Your task to perform on an android device: turn notification dots off Image 0: 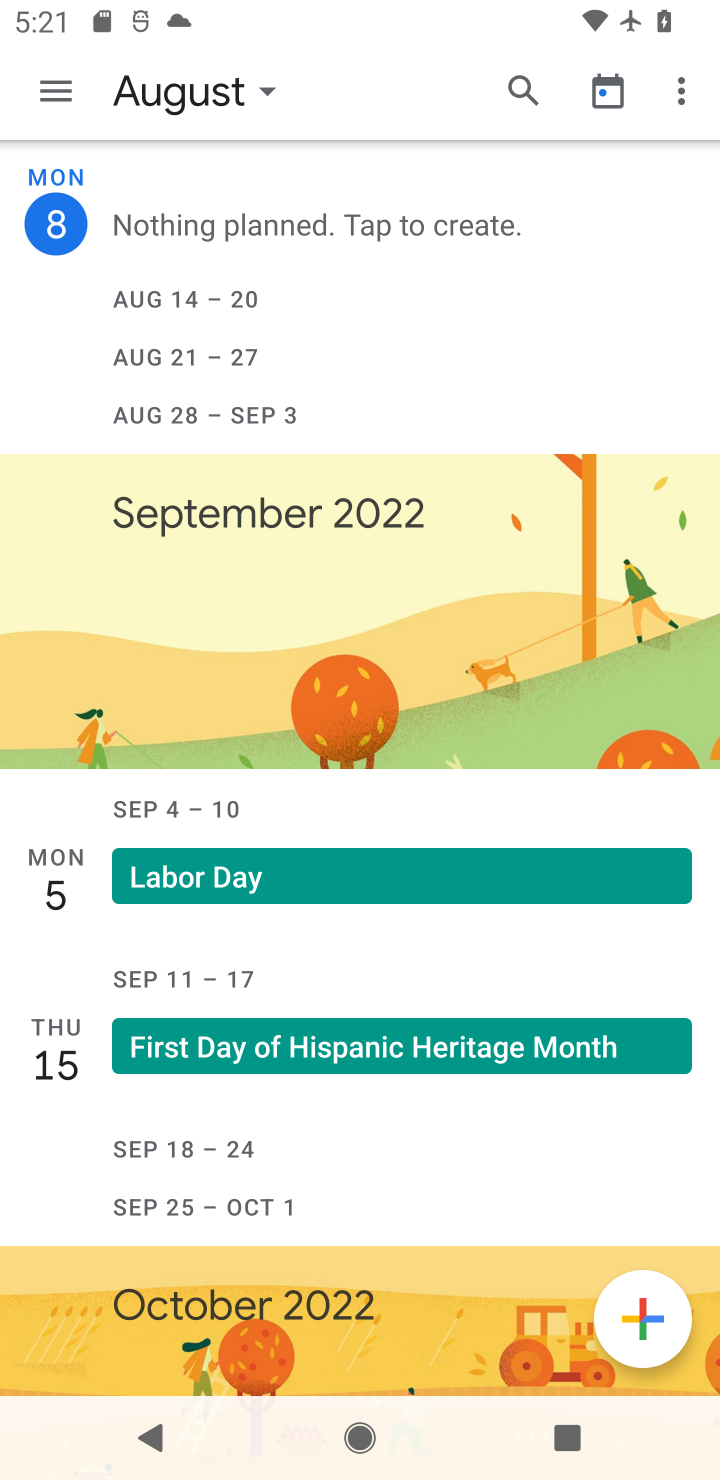
Step 0: press home button
Your task to perform on an android device: turn notification dots off Image 1: 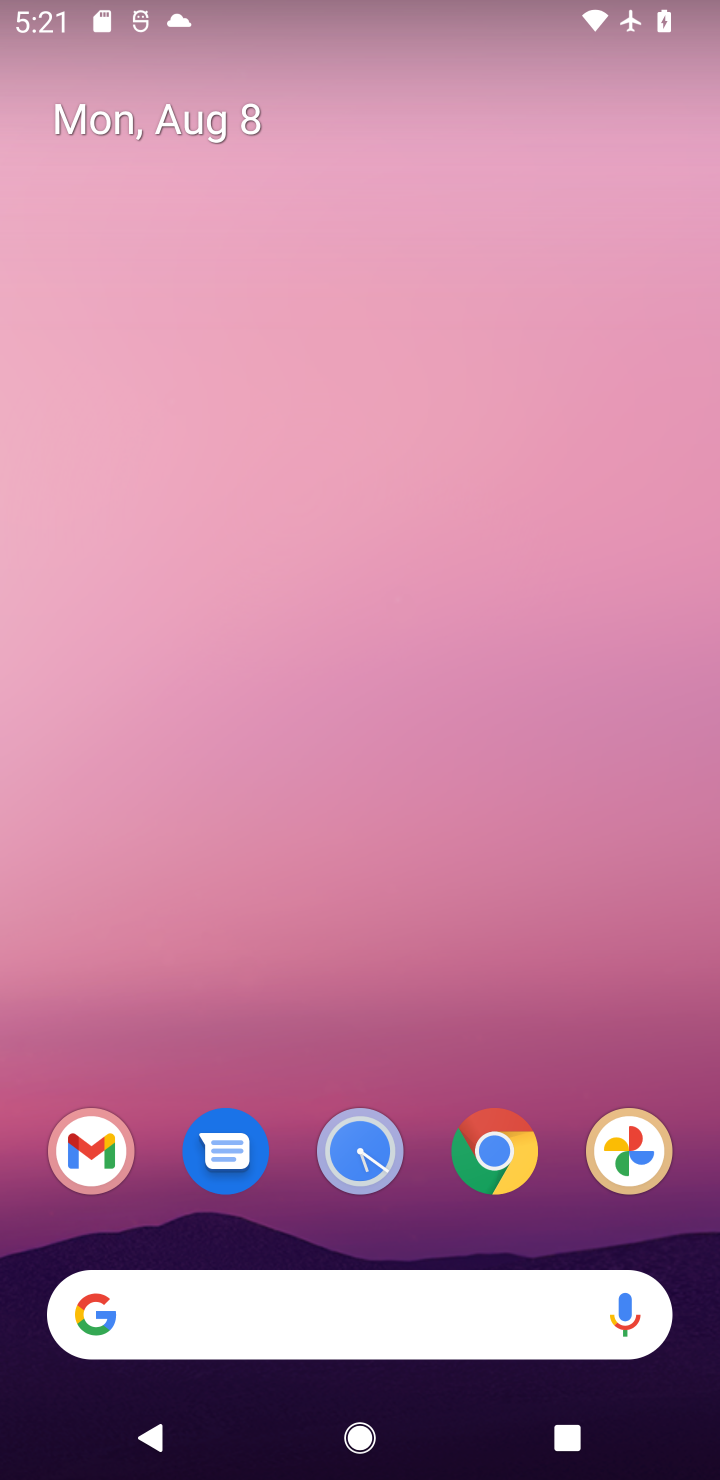
Step 1: drag from (382, 989) to (326, 340)
Your task to perform on an android device: turn notification dots off Image 2: 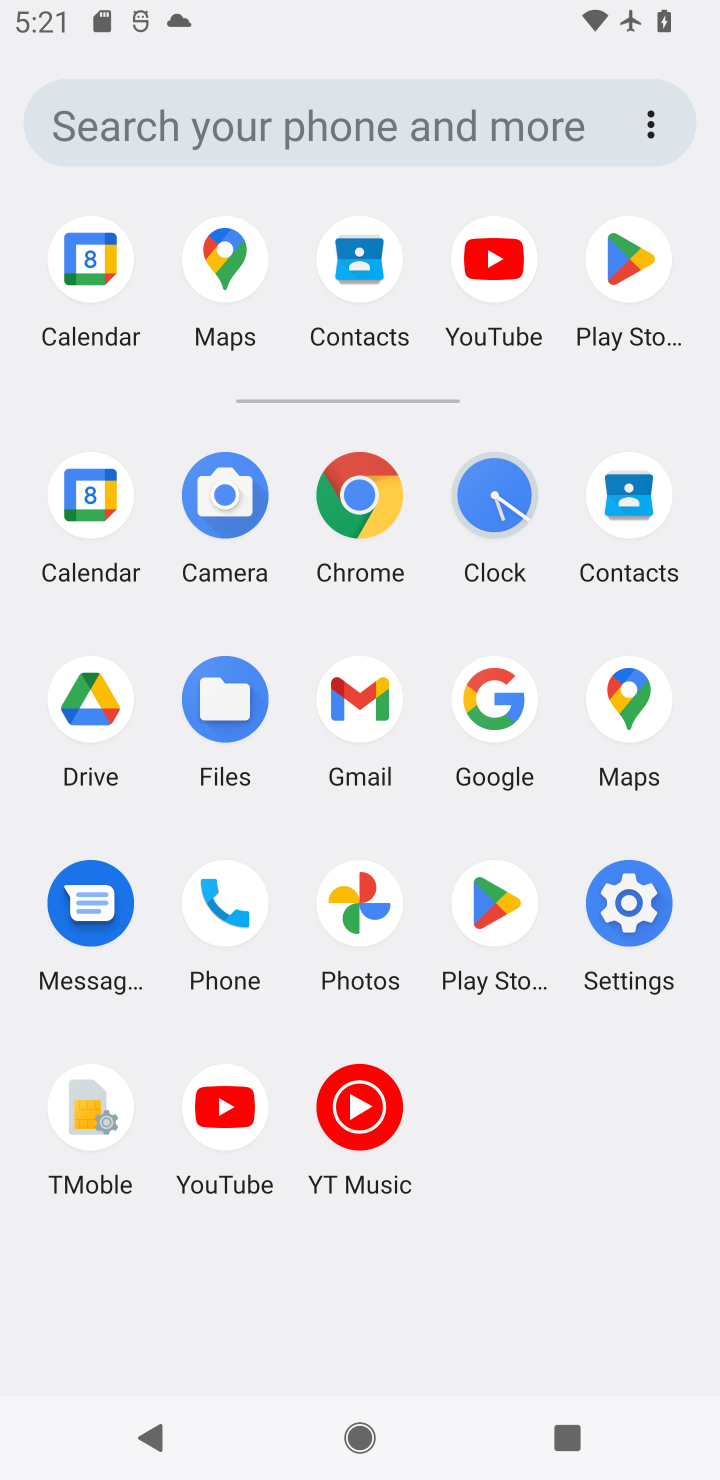
Step 2: click (611, 935)
Your task to perform on an android device: turn notification dots off Image 3: 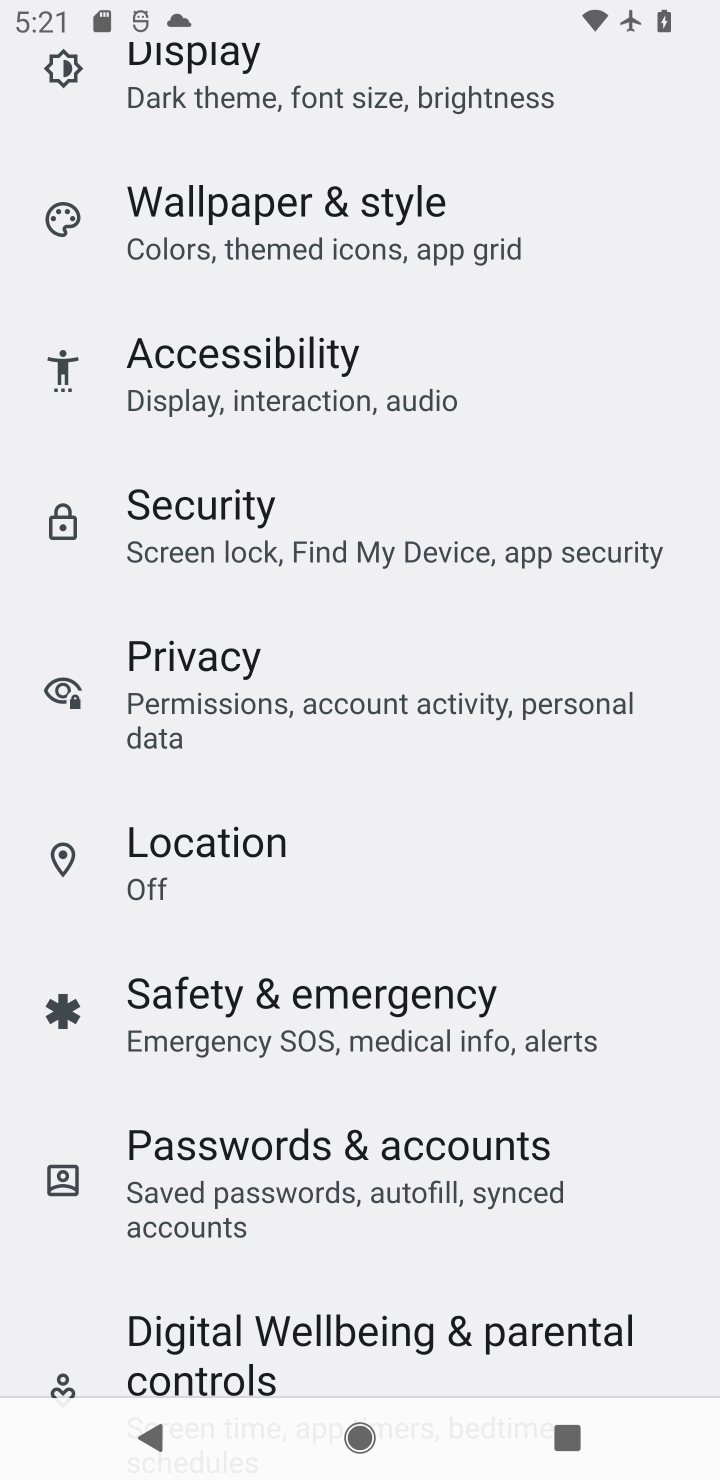
Step 3: drag from (400, 493) to (425, 1081)
Your task to perform on an android device: turn notification dots off Image 4: 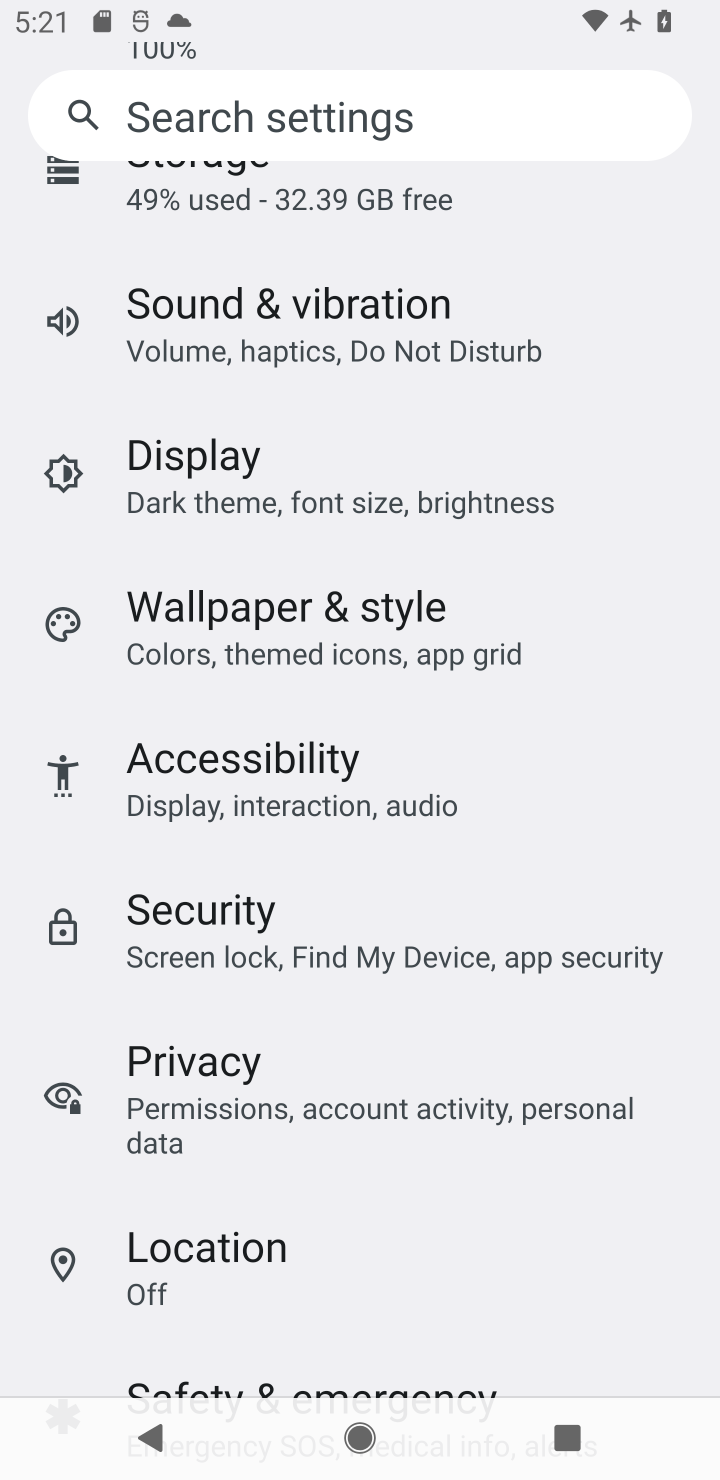
Step 4: drag from (429, 537) to (429, 963)
Your task to perform on an android device: turn notification dots off Image 5: 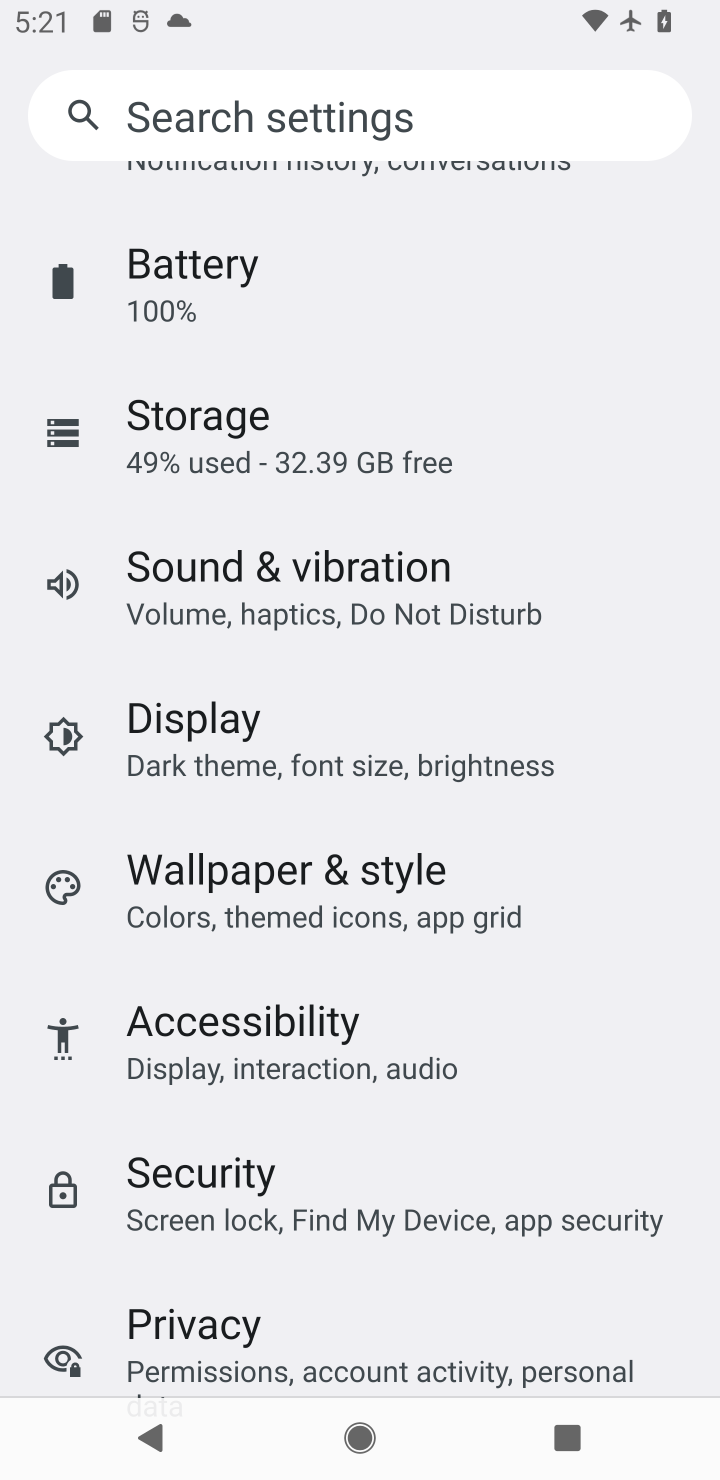
Step 5: drag from (394, 387) to (466, 1006)
Your task to perform on an android device: turn notification dots off Image 6: 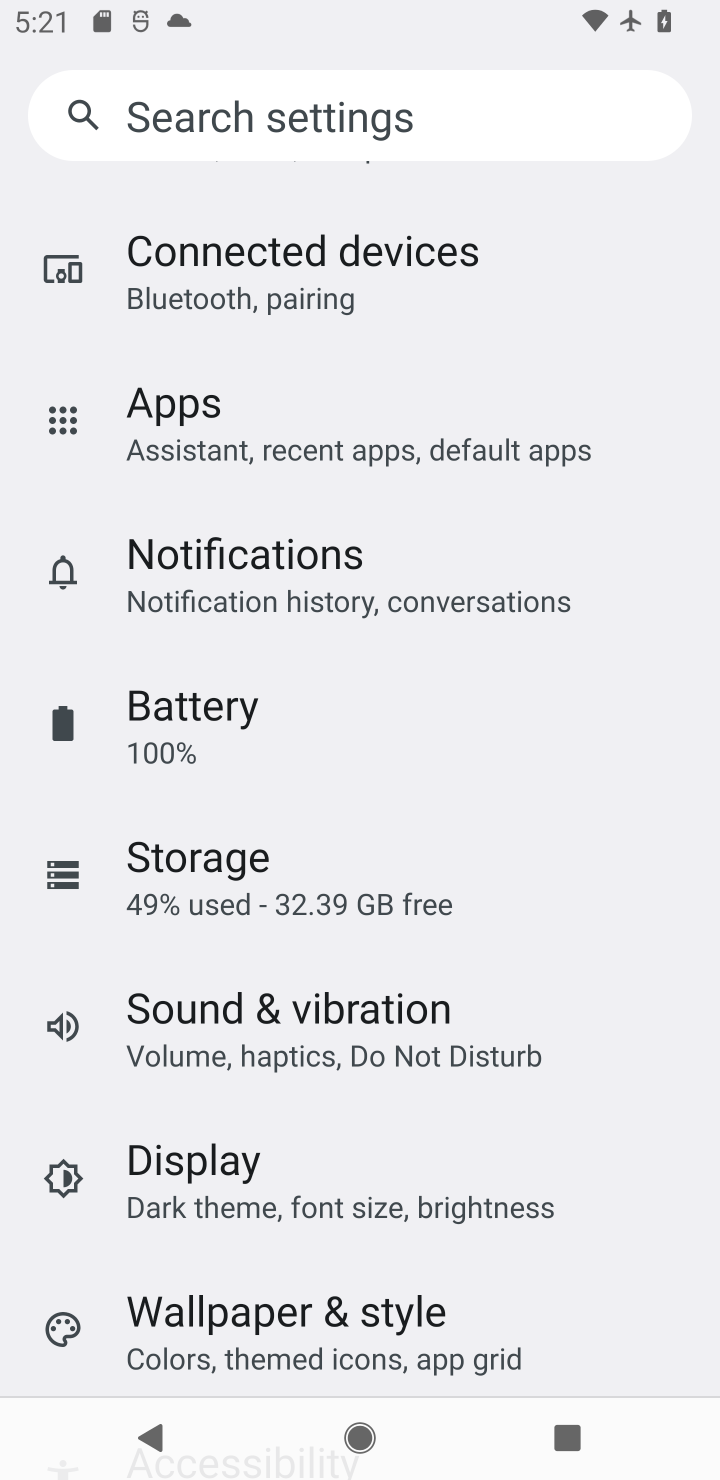
Step 6: click (387, 607)
Your task to perform on an android device: turn notification dots off Image 7: 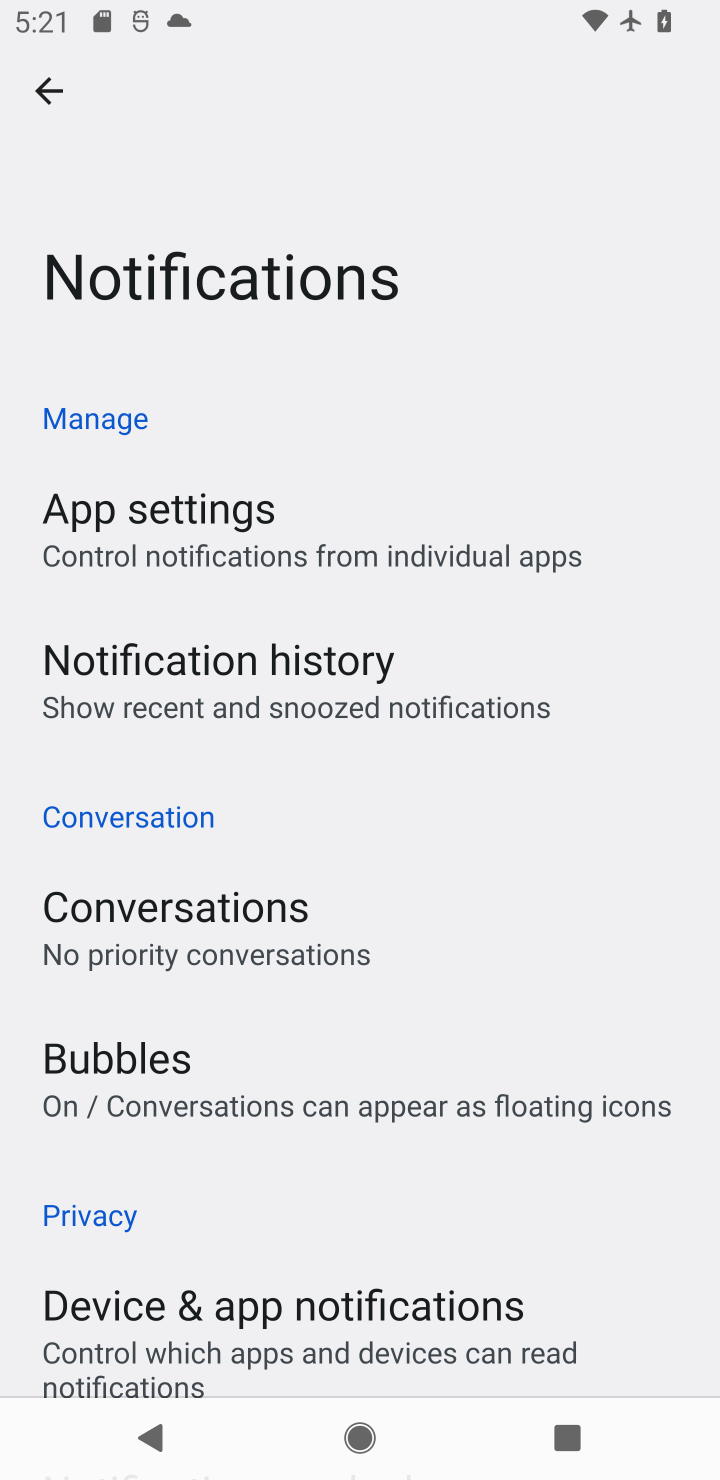
Step 7: task complete